Your task to perform on an android device: move an email to a new category in the gmail app Image 0: 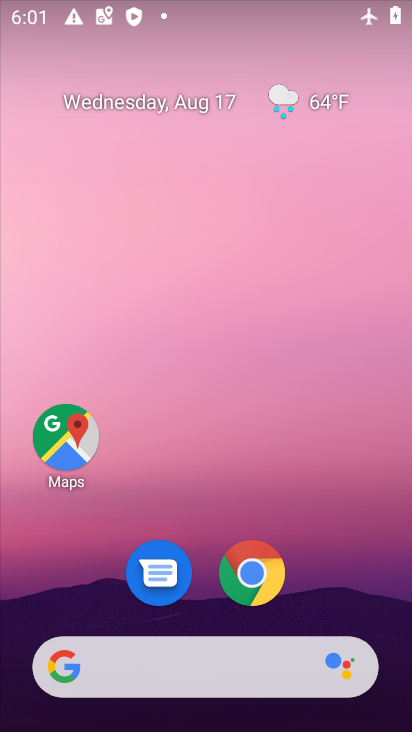
Step 0: drag from (305, 540) to (228, 191)
Your task to perform on an android device: move an email to a new category in the gmail app Image 1: 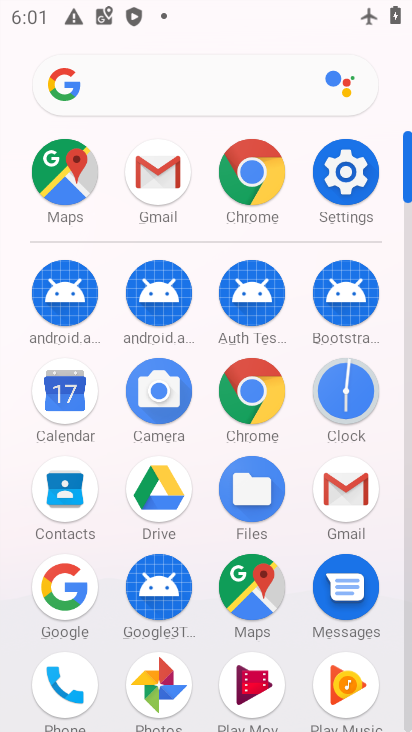
Step 1: click (135, 188)
Your task to perform on an android device: move an email to a new category in the gmail app Image 2: 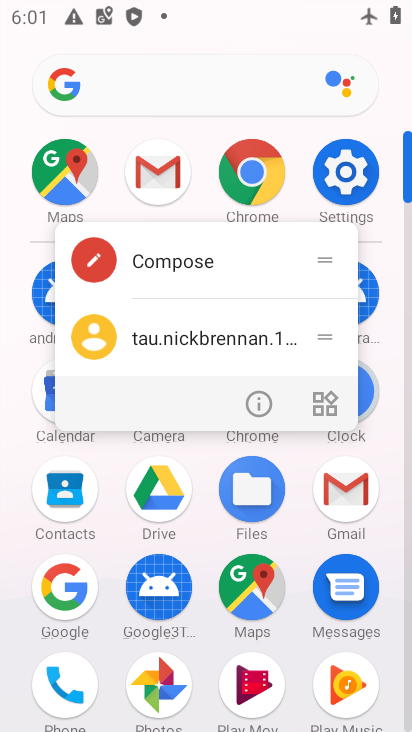
Step 2: click (136, 188)
Your task to perform on an android device: move an email to a new category in the gmail app Image 3: 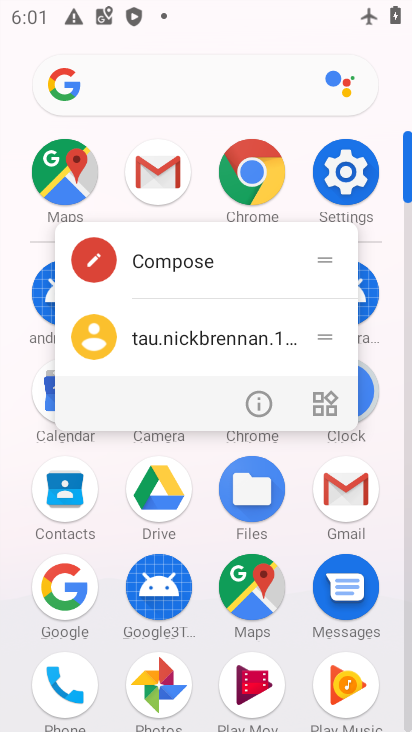
Step 3: click (154, 179)
Your task to perform on an android device: move an email to a new category in the gmail app Image 4: 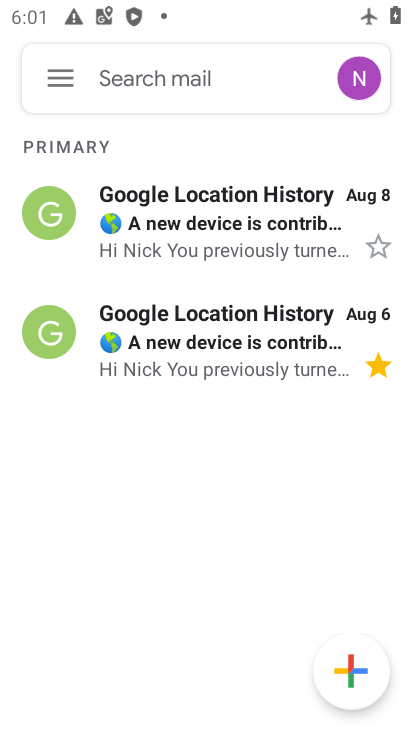
Step 4: click (392, 243)
Your task to perform on an android device: move an email to a new category in the gmail app Image 5: 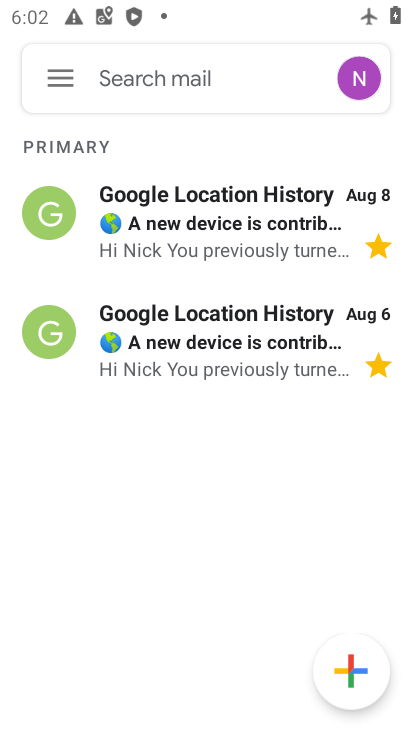
Step 5: task complete